Your task to perform on an android device: toggle wifi Image 0: 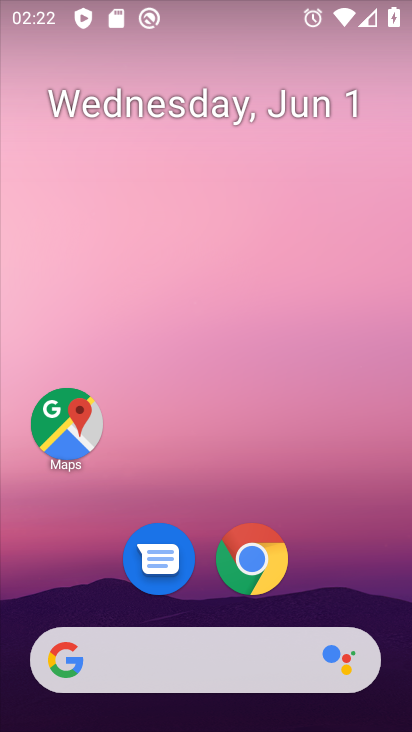
Step 0: press home button
Your task to perform on an android device: toggle wifi Image 1: 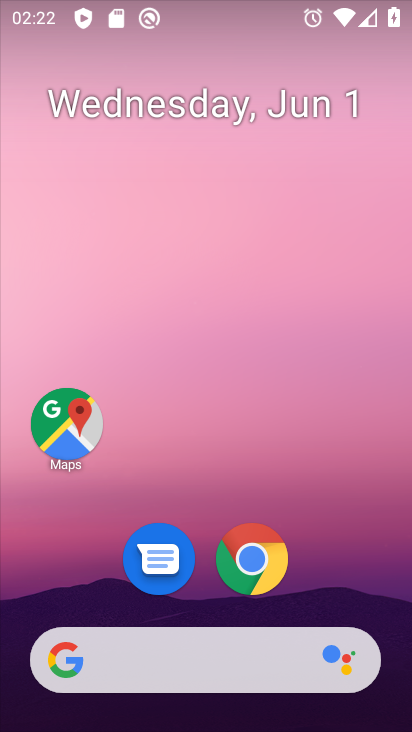
Step 1: drag from (213, 24) to (222, 397)
Your task to perform on an android device: toggle wifi Image 2: 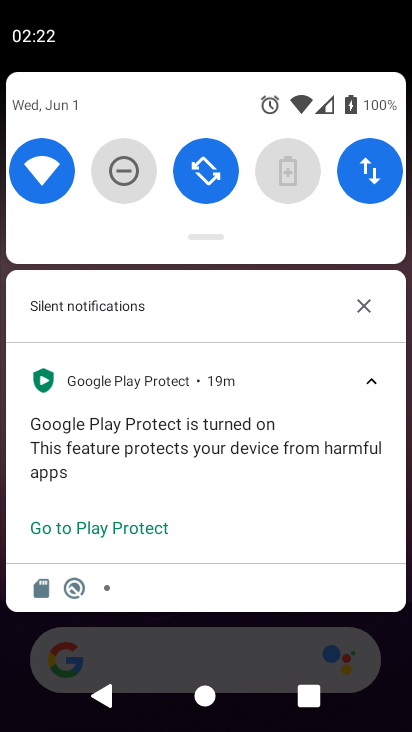
Step 2: click (49, 169)
Your task to perform on an android device: toggle wifi Image 3: 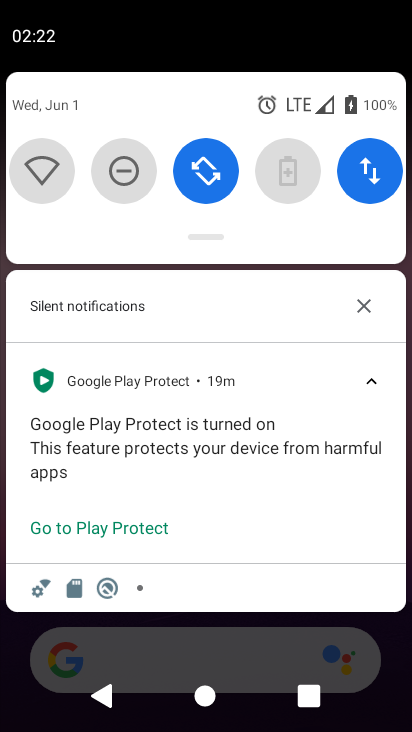
Step 3: task complete